Your task to perform on an android device: open a bookmark in the chrome app Image 0: 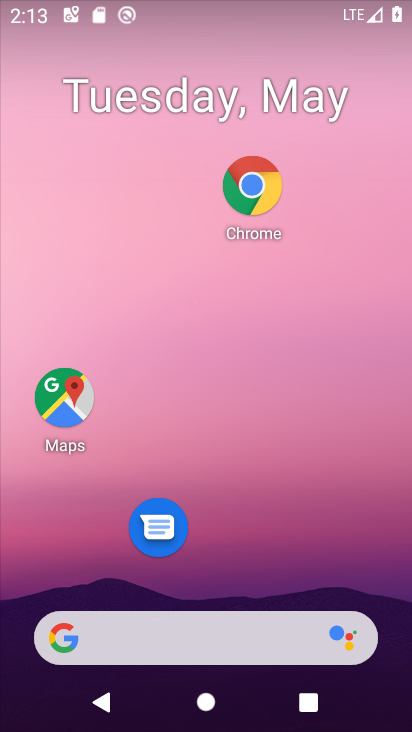
Step 0: drag from (264, 454) to (111, 5)
Your task to perform on an android device: open a bookmark in the chrome app Image 1: 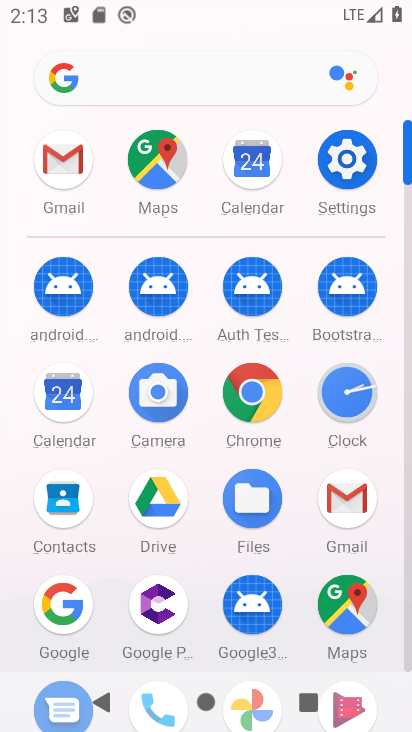
Step 1: click (253, 396)
Your task to perform on an android device: open a bookmark in the chrome app Image 2: 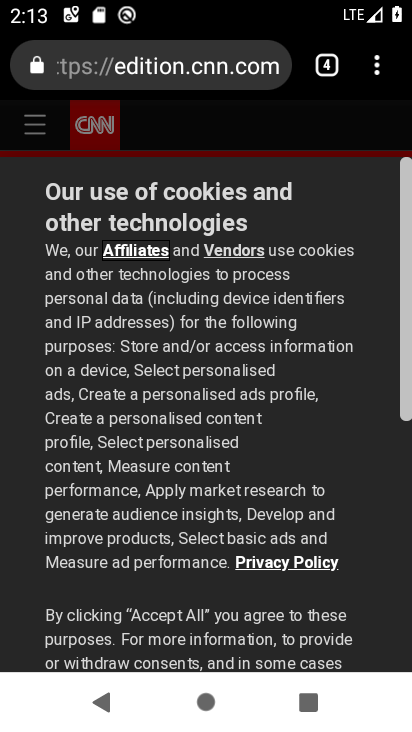
Step 2: click (374, 59)
Your task to perform on an android device: open a bookmark in the chrome app Image 3: 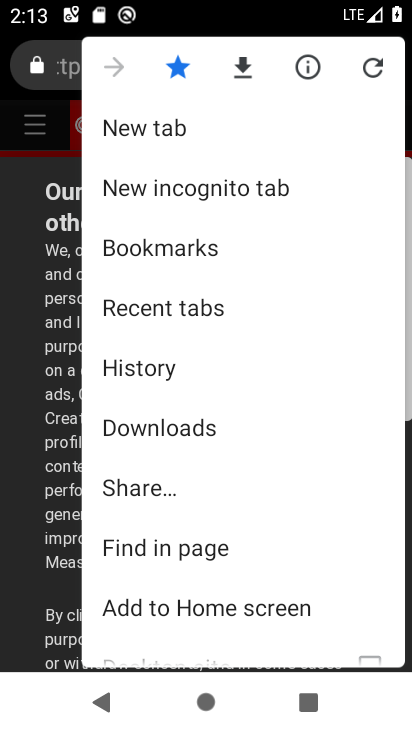
Step 3: click (171, 244)
Your task to perform on an android device: open a bookmark in the chrome app Image 4: 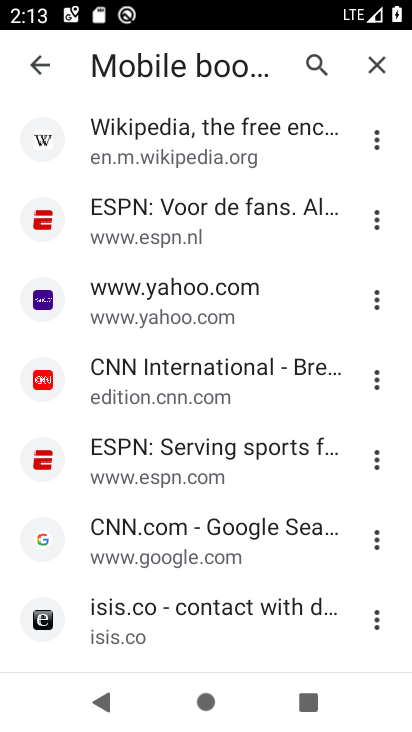
Step 4: task complete